Your task to perform on an android device: Open the phone app and click the voicemail tab. Image 0: 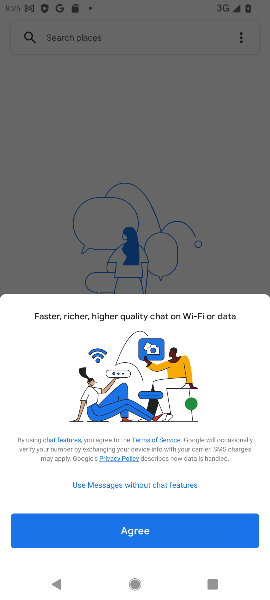
Step 0: press home button
Your task to perform on an android device: Open the phone app and click the voicemail tab. Image 1: 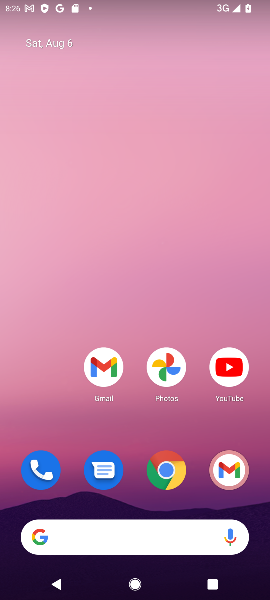
Step 1: click (41, 461)
Your task to perform on an android device: Open the phone app and click the voicemail tab. Image 2: 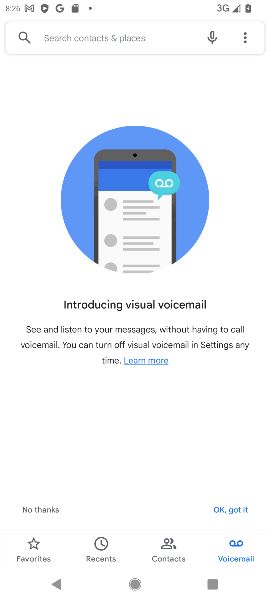
Step 2: task complete